Your task to perform on an android device: Show me popular videos on Youtube Image 0: 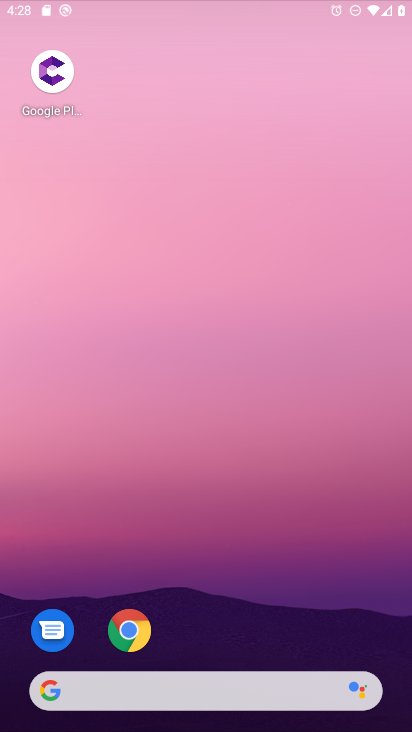
Step 0: drag from (230, 556) to (214, 77)
Your task to perform on an android device: Show me popular videos on Youtube Image 1: 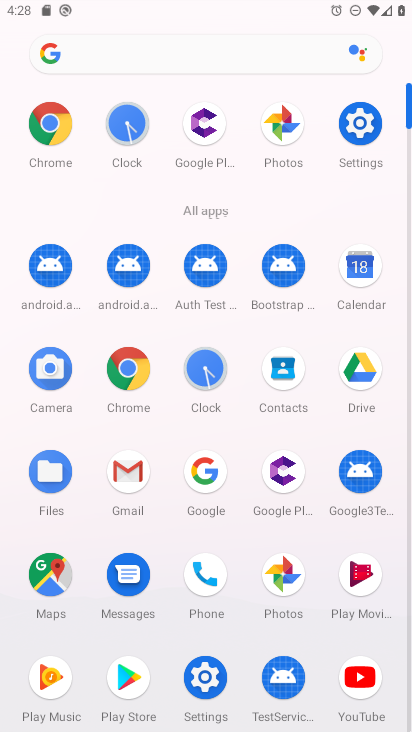
Step 1: click (350, 683)
Your task to perform on an android device: Show me popular videos on Youtube Image 2: 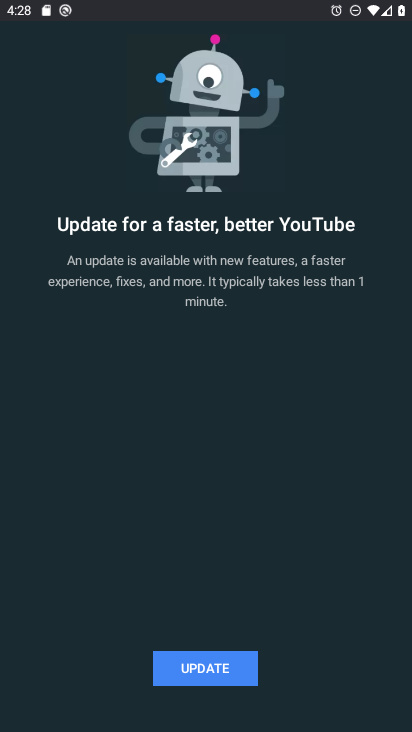
Step 2: click (186, 667)
Your task to perform on an android device: Show me popular videos on Youtube Image 3: 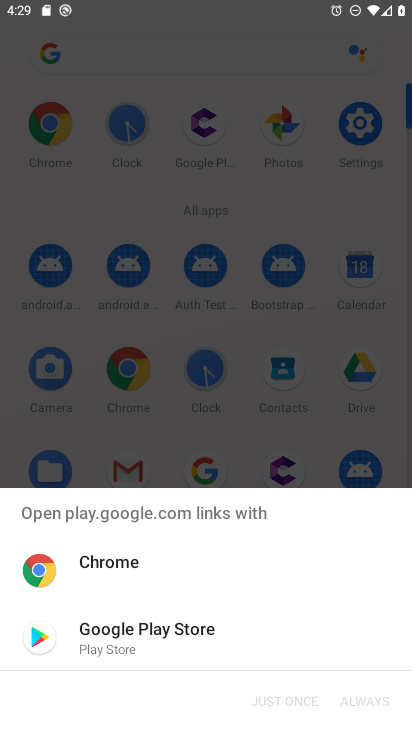
Step 3: click (125, 619)
Your task to perform on an android device: Show me popular videos on Youtube Image 4: 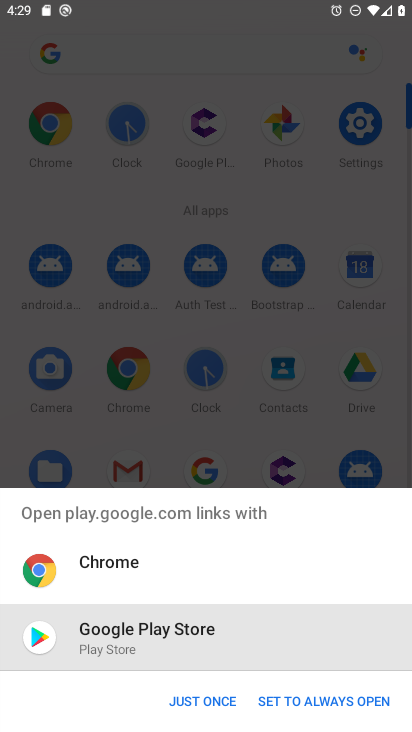
Step 4: click (201, 697)
Your task to perform on an android device: Show me popular videos on Youtube Image 5: 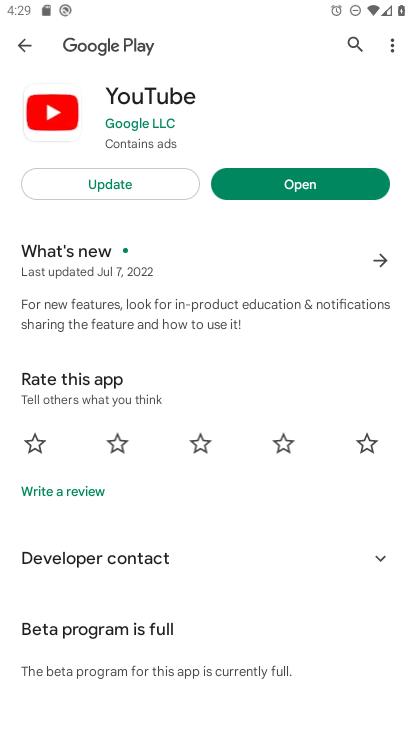
Step 5: click (140, 182)
Your task to perform on an android device: Show me popular videos on Youtube Image 6: 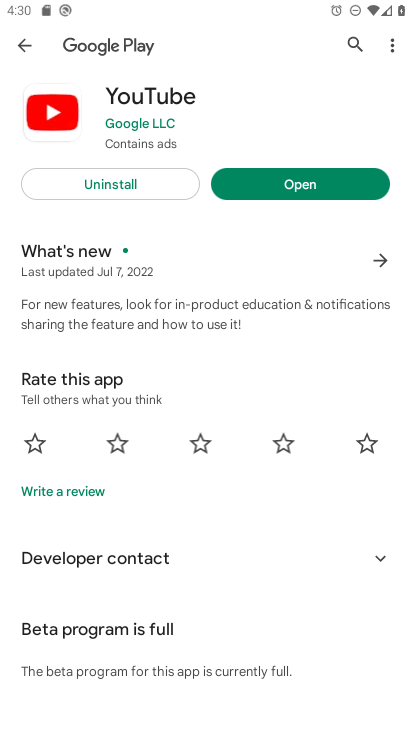
Step 6: click (263, 172)
Your task to perform on an android device: Show me popular videos on Youtube Image 7: 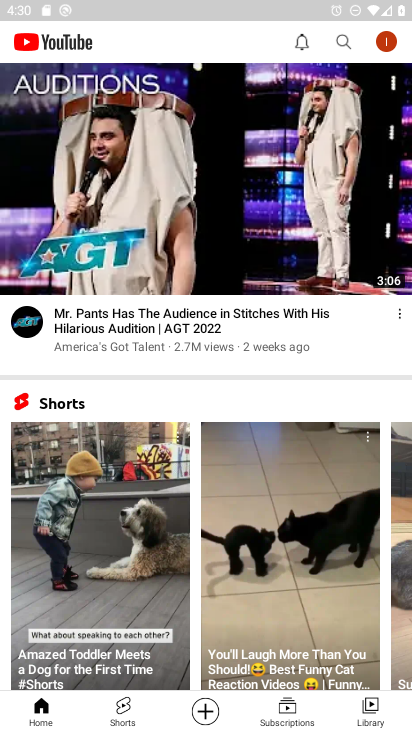
Step 7: click (113, 704)
Your task to perform on an android device: Show me popular videos on Youtube Image 8: 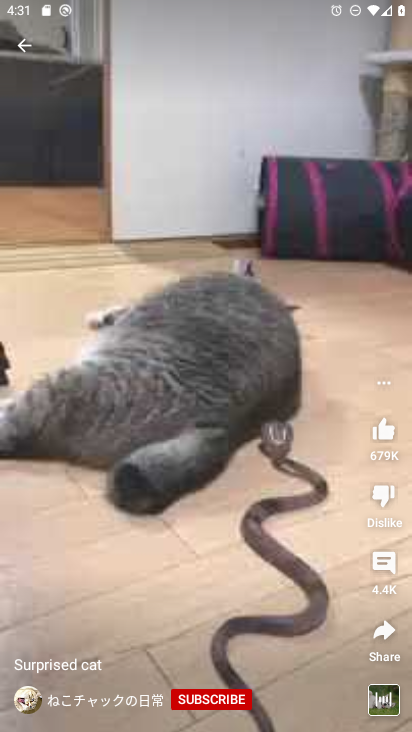
Step 8: task complete